Your task to perform on an android device: choose inbox layout in the gmail app Image 0: 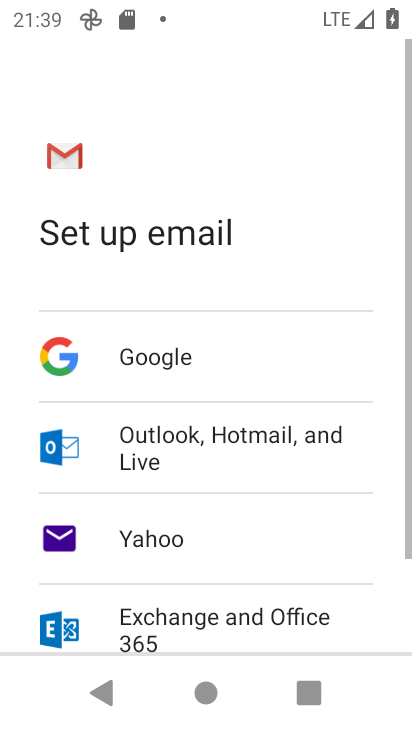
Step 0: press home button
Your task to perform on an android device: choose inbox layout in the gmail app Image 1: 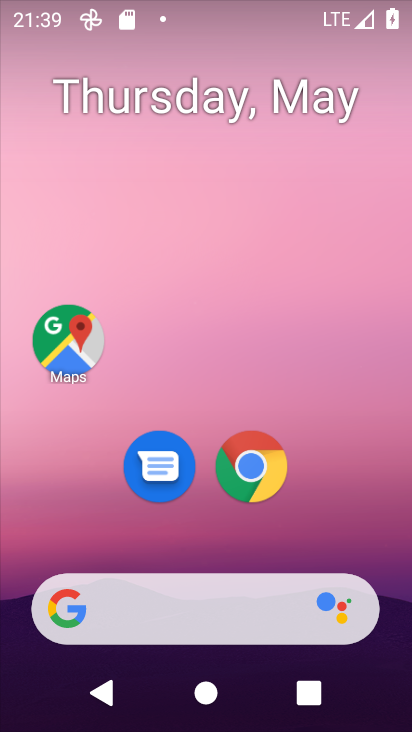
Step 1: drag from (337, 559) to (320, 182)
Your task to perform on an android device: choose inbox layout in the gmail app Image 2: 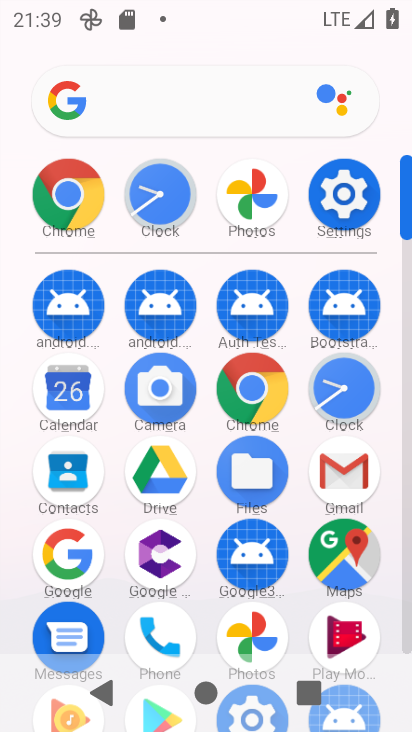
Step 2: click (341, 483)
Your task to perform on an android device: choose inbox layout in the gmail app Image 3: 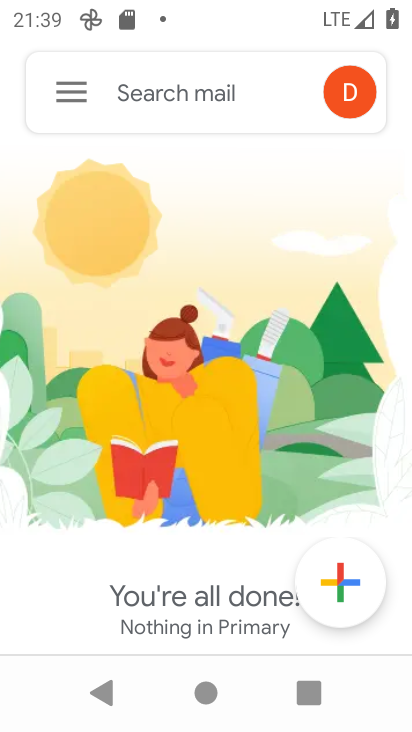
Step 3: task complete